Your task to perform on an android device: Open privacy settings Image 0: 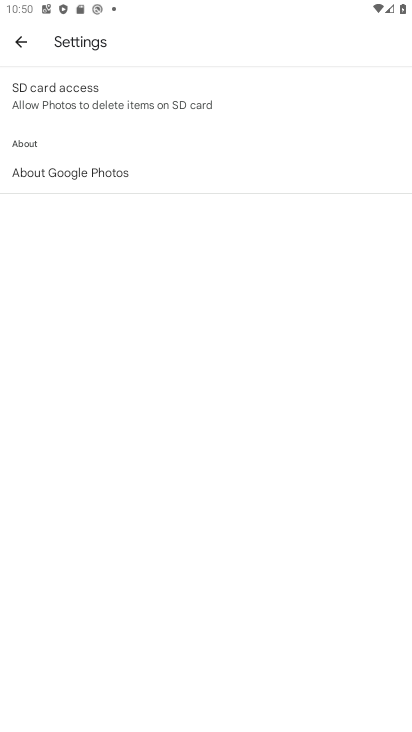
Step 0: press home button
Your task to perform on an android device: Open privacy settings Image 1: 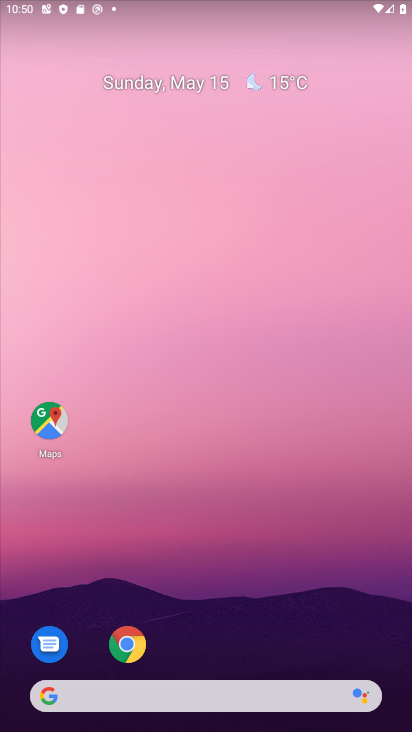
Step 1: drag from (213, 661) to (287, 346)
Your task to perform on an android device: Open privacy settings Image 2: 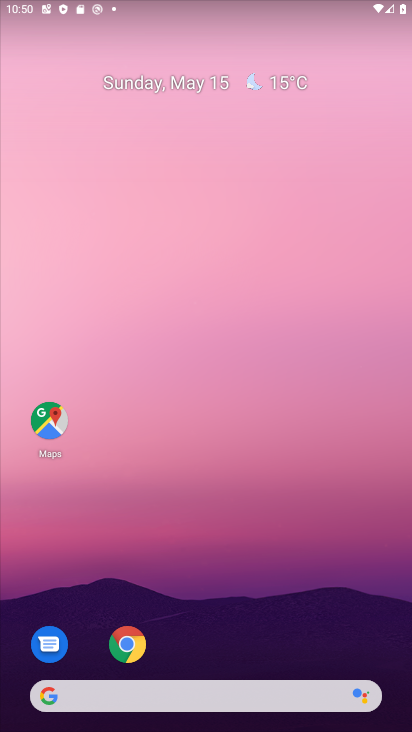
Step 2: drag from (182, 632) to (286, 134)
Your task to perform on an android device: Open privacy settings Image 3: 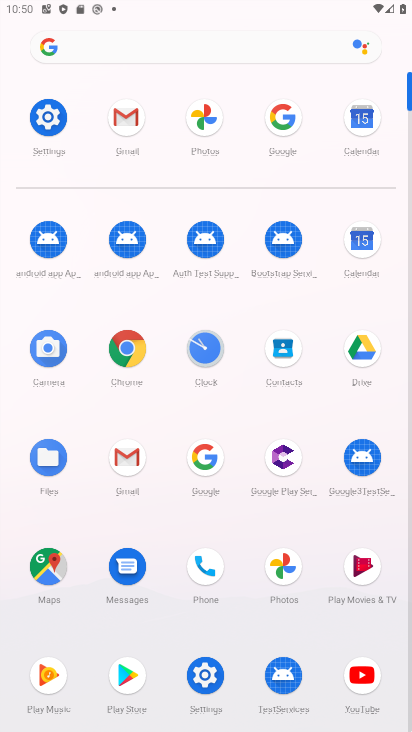
Step 3: click (44, 111)
Your task to perform on an android device: Open privacy settings Image 4: 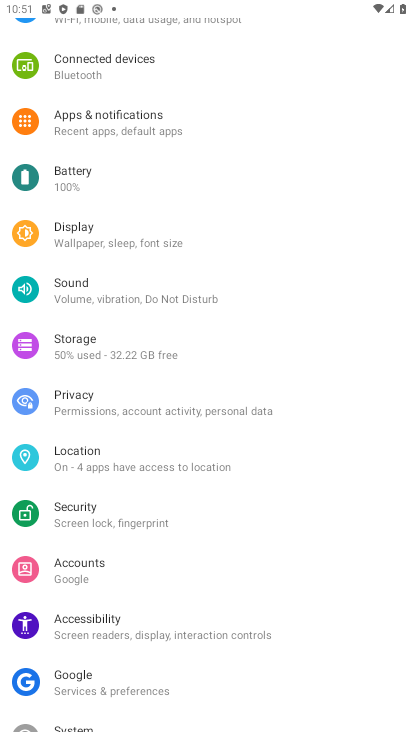
Step 4: click (111, 404)
Your task to perform on an android device: Open privacy settings Image 5: 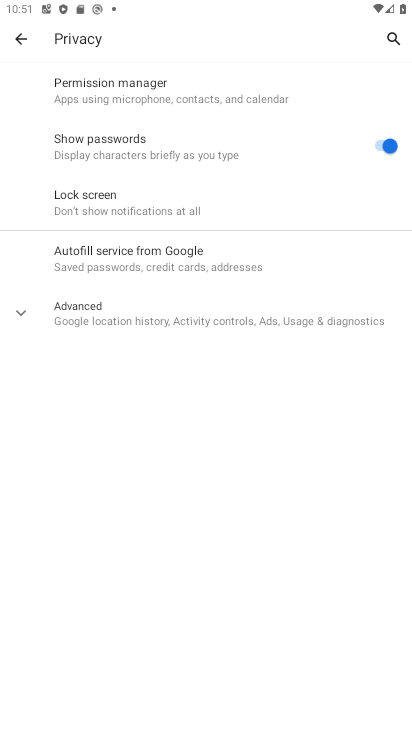
Step 5: drag from (198, 535) to (208, 323)
Your task to perform on an android device: Open privacy settings Image 6: 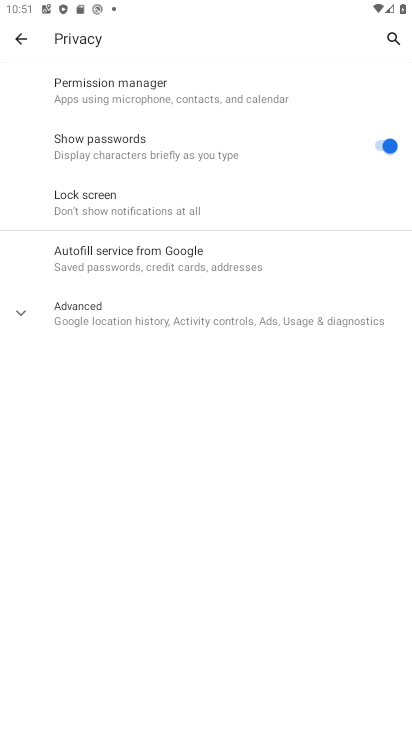
Step 6: click (189, 314)
Your task to perform on an android device: Open privacy settings Image 7: 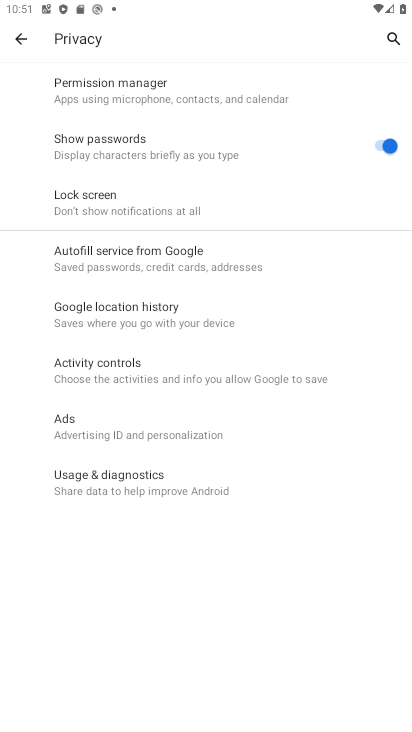
Step 7: task complete